Your task to perform on an android device: Look up the best rated book on Goodreads Image 0: 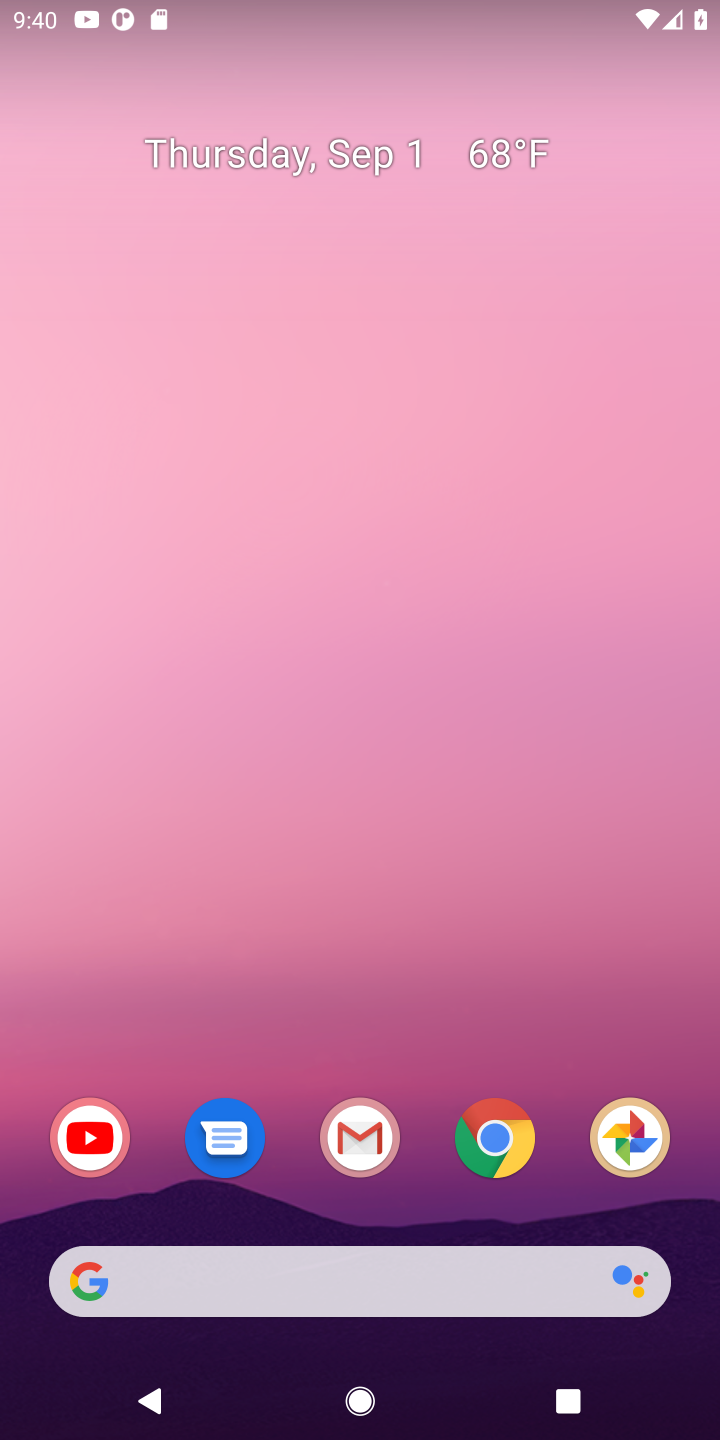
Step 0: click (469, 1147)
Your task to perform on an android device: Look up the best rated book on Goodreads Image 1: 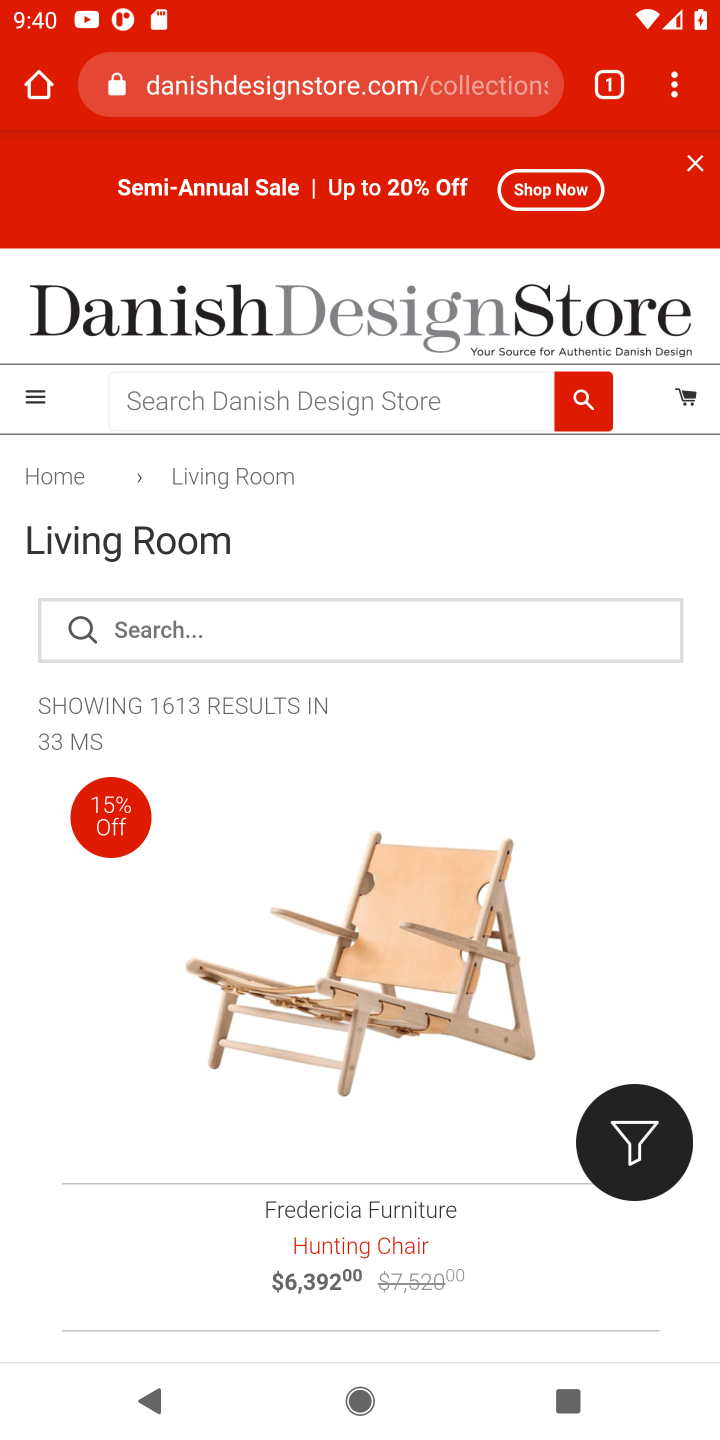
Step 1: press back button
Your task to perform on an android device: Look up the best rated book on Goodreads Image 2: 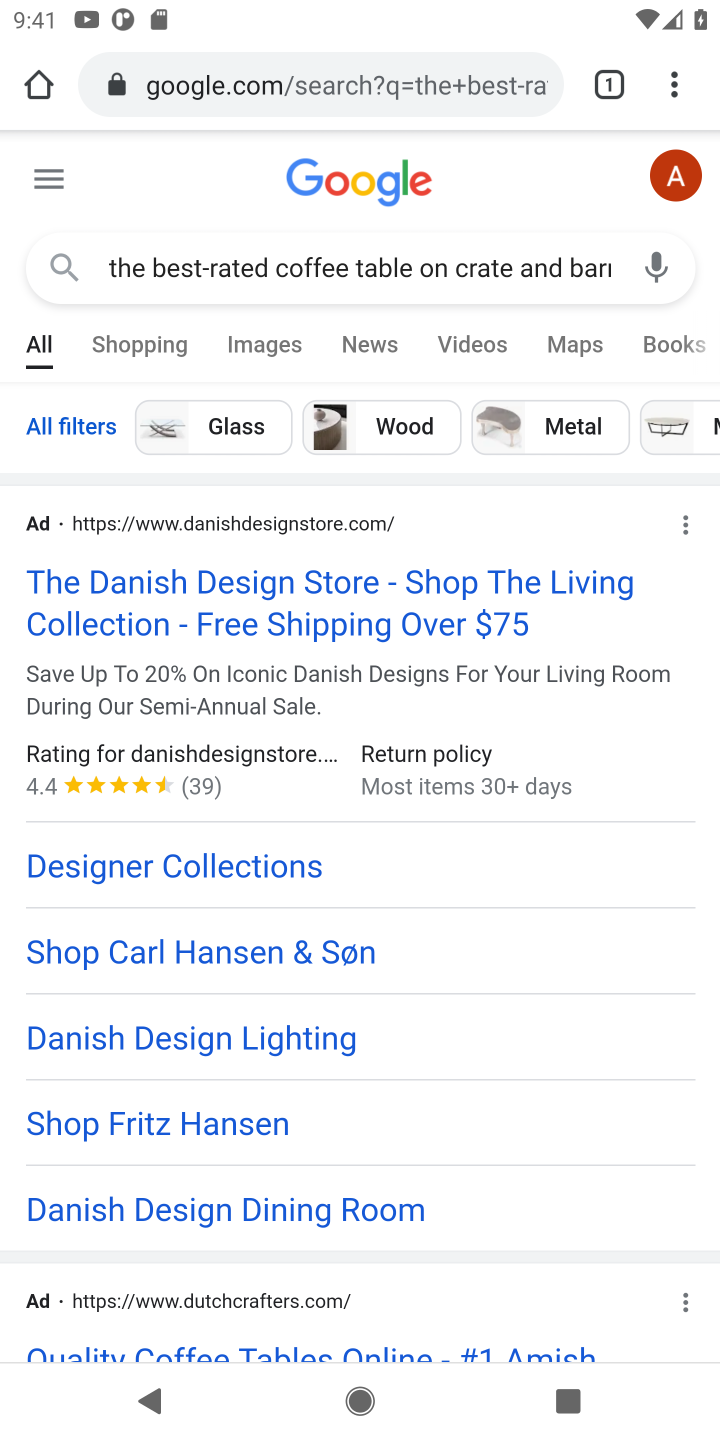
Step 2: click (456, 81)
Your task to perform on an android device: Look up the best rated book on Goodreads Image 3: 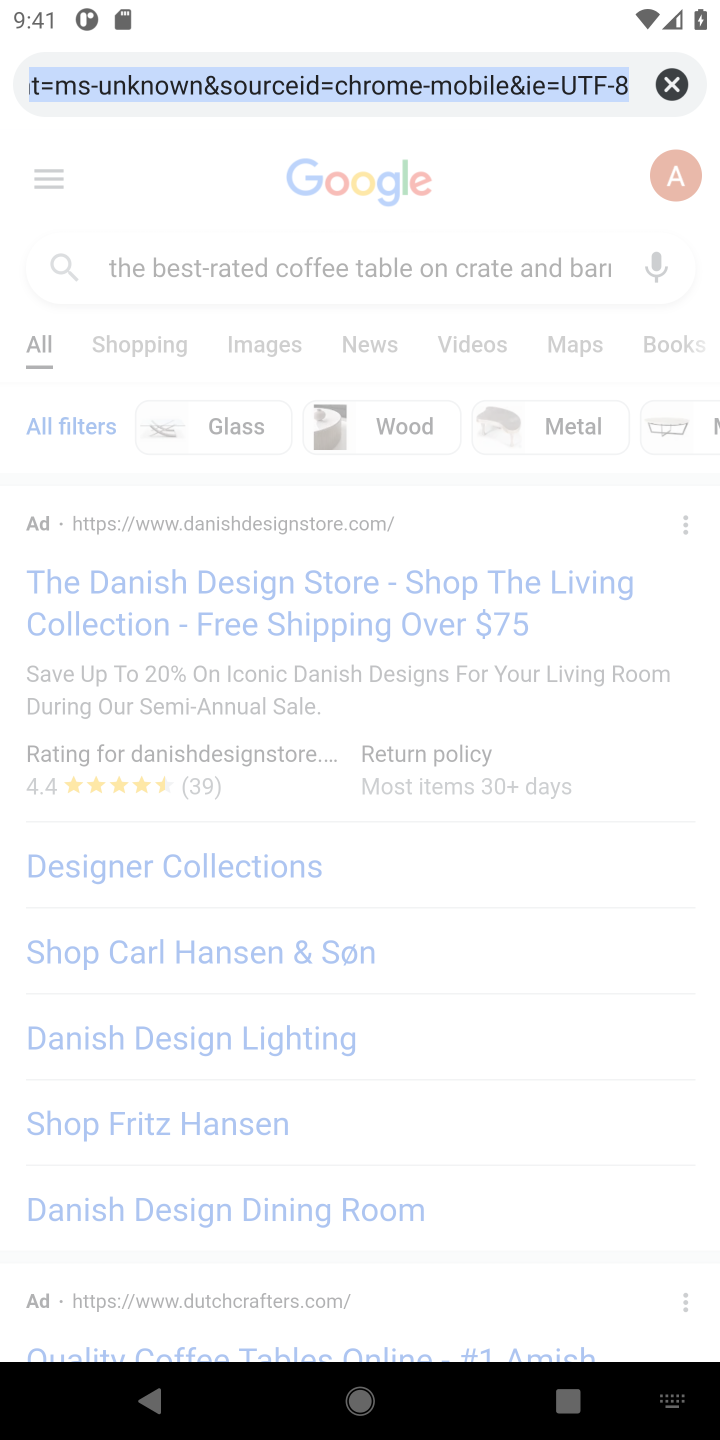
Step 3: click (659, 78)
Your task to perform on an android device: Look up the best rated book on Goodreads Image 4: 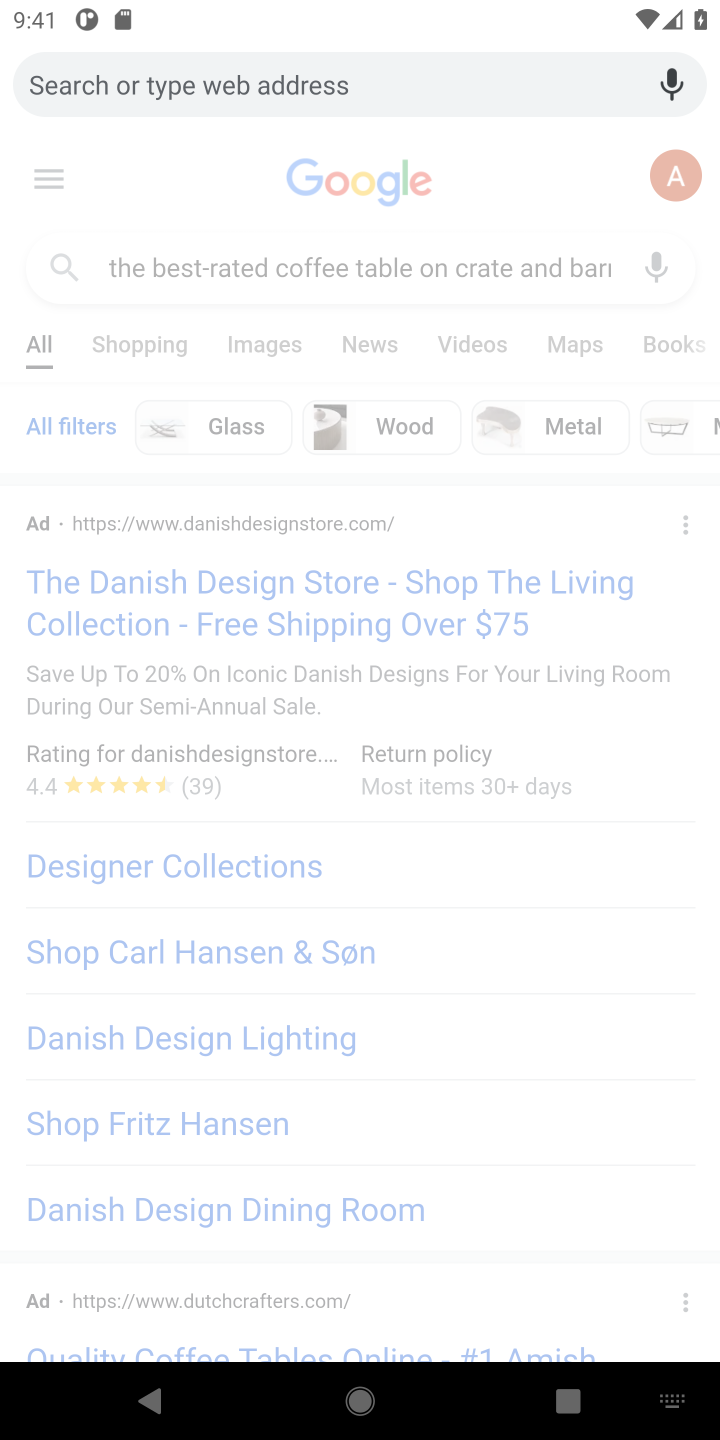
Step 4: type "the best rated book on Goodreads"
Your task to perform on an android device: Look up the best rated book on Goodreads Image 5: 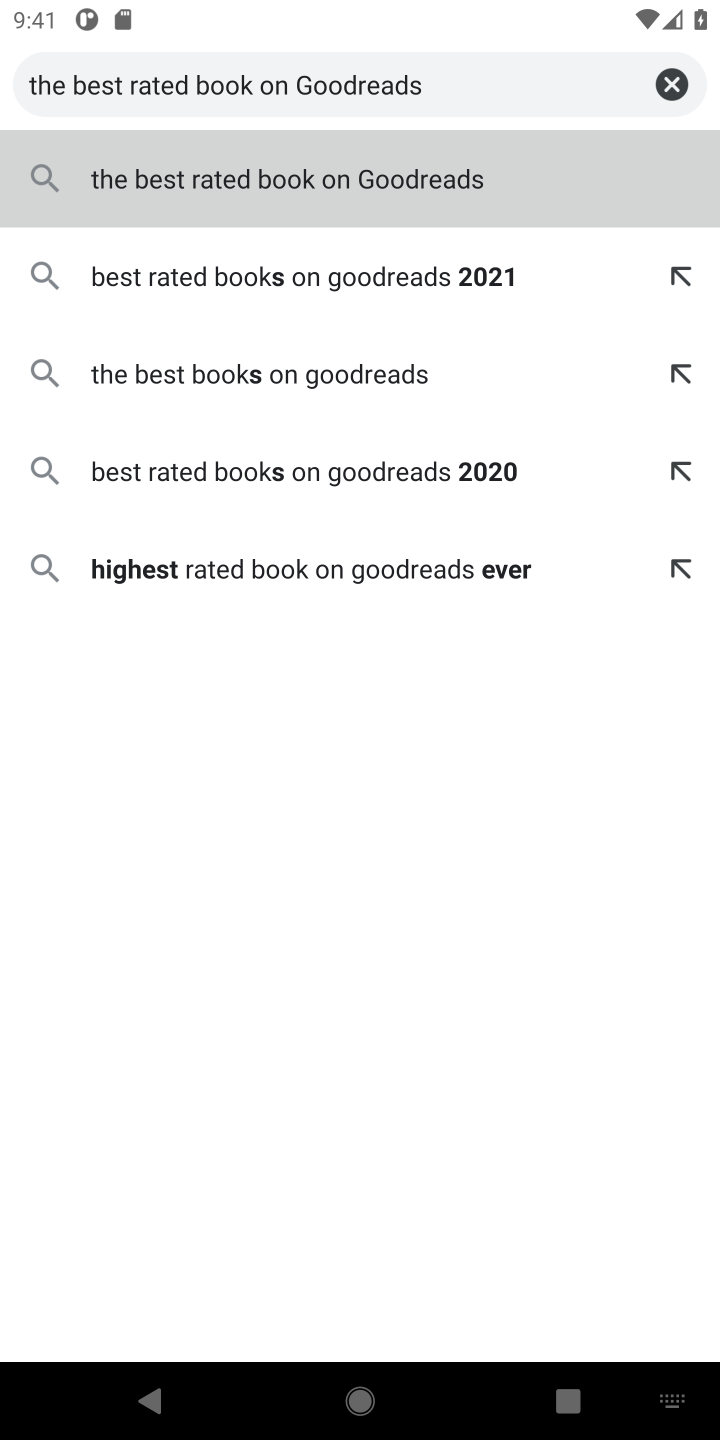
Step 5: click (320, 170)
Your task to perform on an android device: Look up the best rated book on Goodreads Image 6: 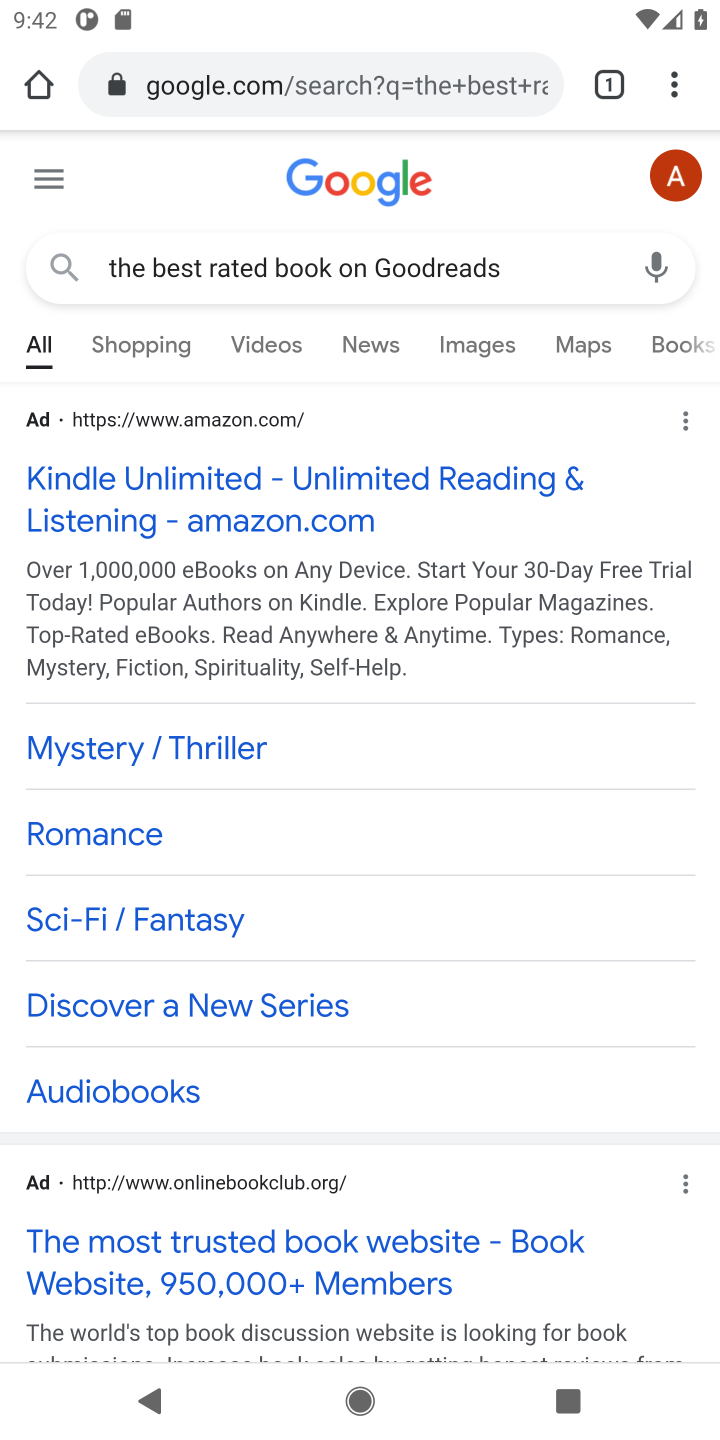
Step 6: click (193, 469)
Your task to perform on an android device: Look up the best rated book on Goodreads Image 7: 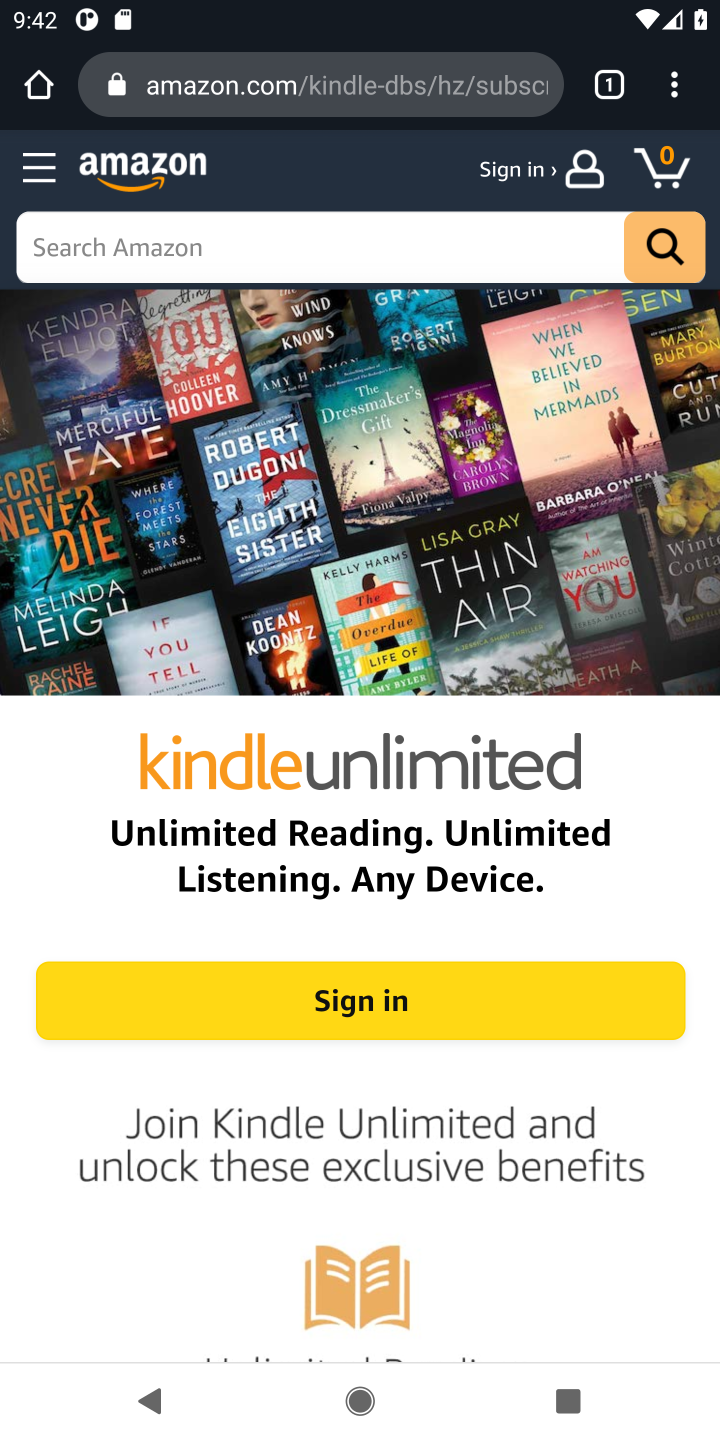
Step 7: task complete